Your task to perform on an android device: read, delete, or share a saved page in the chrome app Image 0: 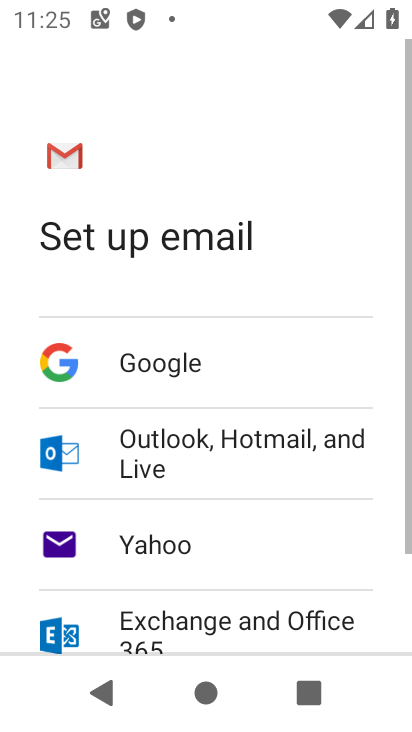
Step 0: drag from (204, 599) to (293, 216)
Your task to perform on an android device: read, delete, or share a saved page in the chrome app Image 1: 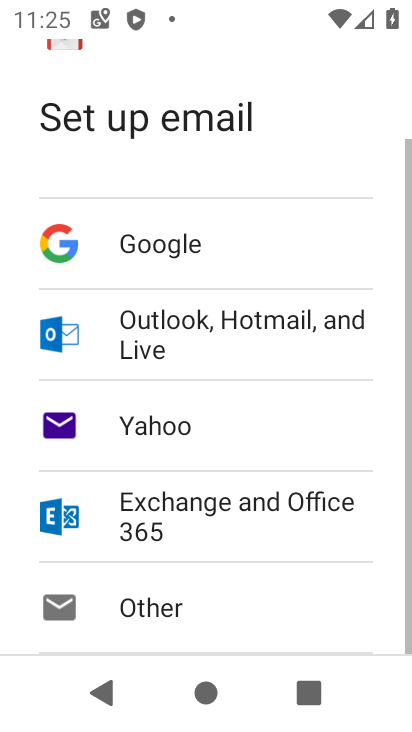
Step 1: drag from (245, 429) to (268, 638)
Your task to perform on an android device: read, delete, or share a saved page in the chrome app Image 2: 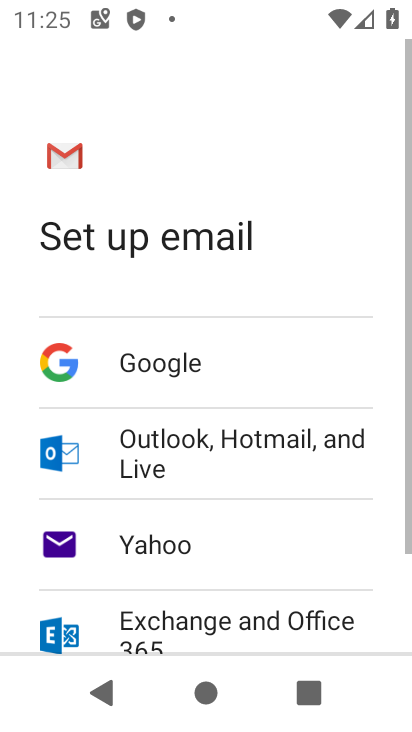
Step 2: press home button
Your task to perform on an android device: read, delete, or share a saved page in the chrome app Image 3: 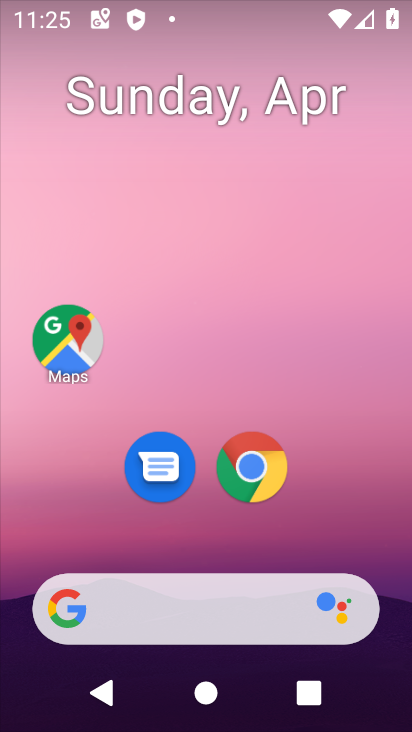
Step 3: drag from (215, 543) to (259, 214)
Your task to perform on an android device: read, delete, or share a saved page in the chrome app Image 4: 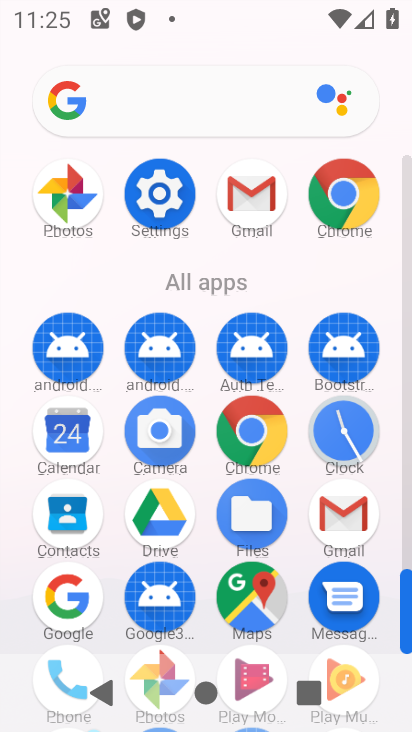
Step 4: click (265, 417)
Your task to perform on an android device: read, delete, or share a saved page in the chrome app Image 5: 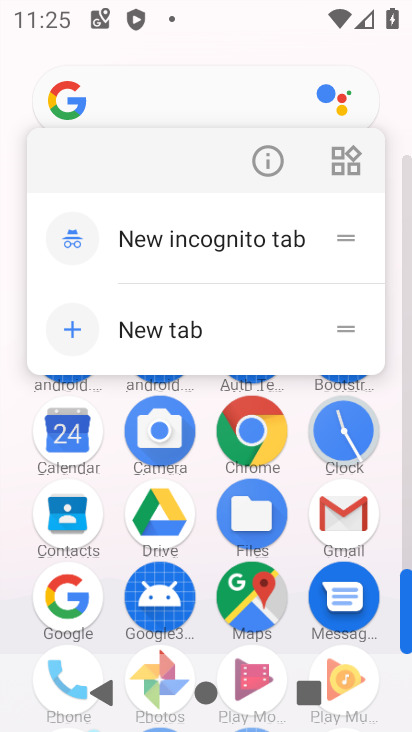
Step 5: click (266, 148)
Your task to perform on an android device: read, delete, or share a saved page in the chrome app Image 6: 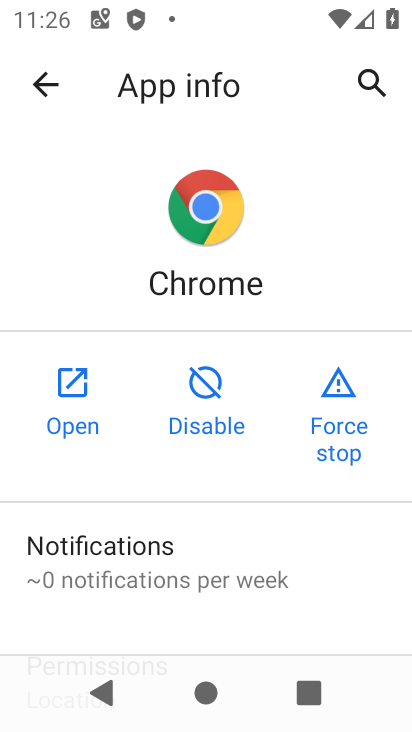
Step 6: click (92, 363)
Your task to perform on an android device: read, delete, or share a saved page in the chrome app Image 7: 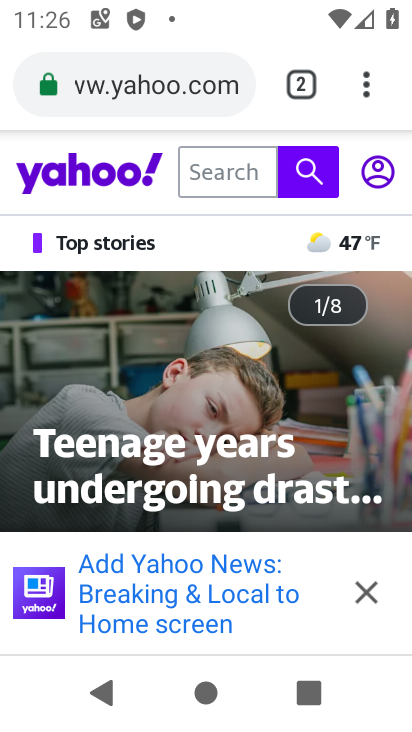
Step 7: drag from (370, 77) to (186, 338)
Your task to perform on an android device: read, delete, or share a saved page in the chrome app Image 8: 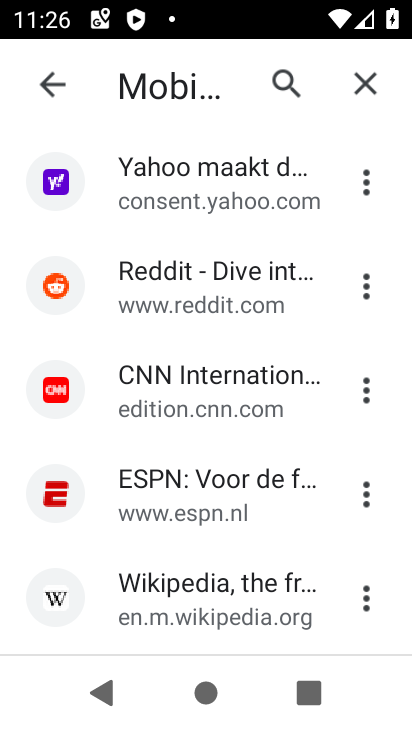
Step 8: click (364, 187)
Your task to perform on an android device: read, delete, or share a saved page in the chrome app Image 9: 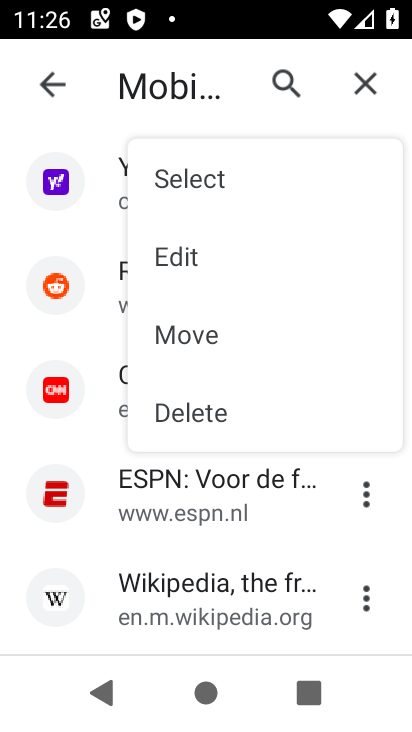
Step 9: click (196, 414)
Your task to perform on an android device: read, delete, or share a saved page in the chrome app Image 10: 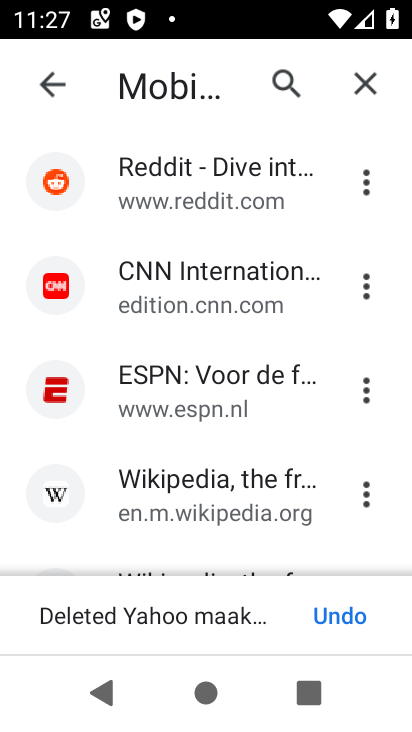
Step 10: click (108, 301)
Your task to perform on an android device: read, delete, or share a saved page in the chrome app Image 11: 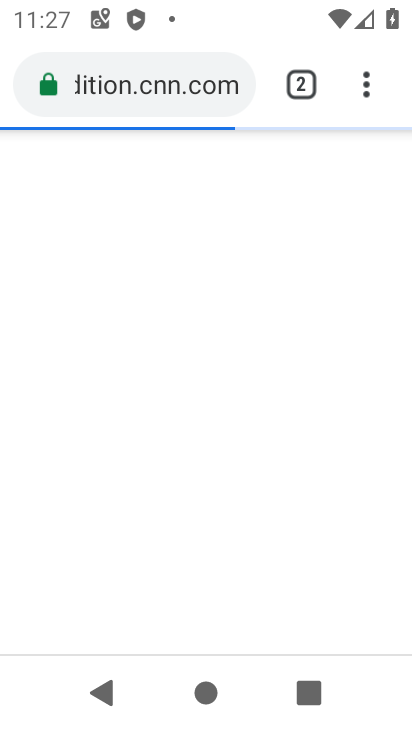
Step 11: task complete